Your task to perform on an android device: Search for a small bookcase on Ikea.com Image 0: 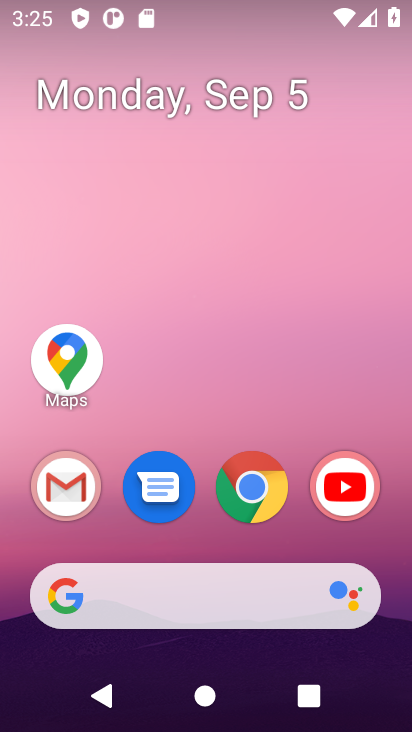
Step 0: drag from (302, 534) to (245, 110)
Your task to perform on an android device: Search for a small bookcase on Ikea.com Image 1: 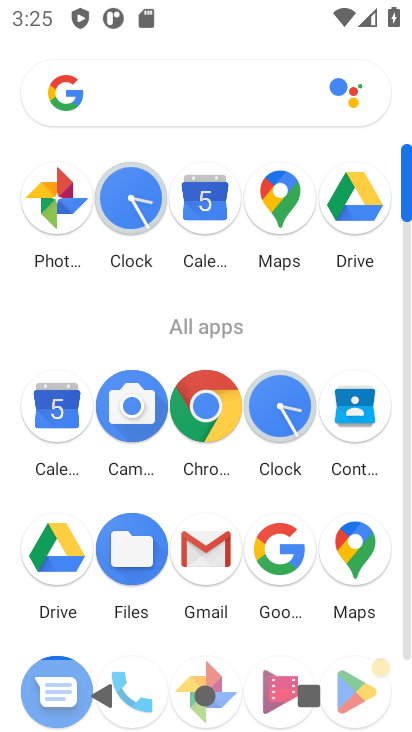
Step 1: click (197, 408)
Your task to perform on an android device: Search for a small bookcase on Ikea.com Image 2: 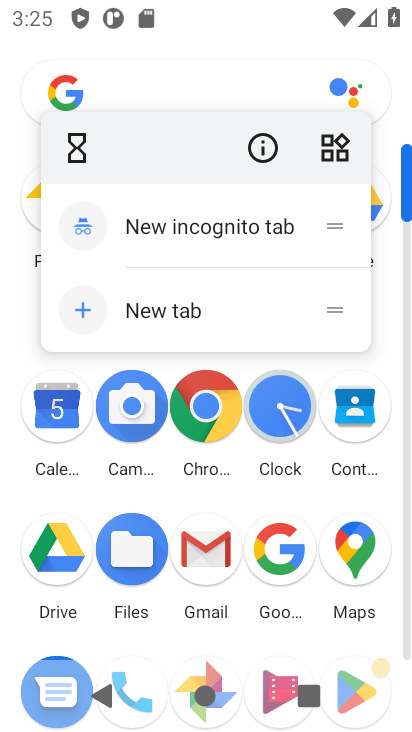
Step 2: click (199, 405)
Your task to perform on an android device: Search for a small bookcase on Ikea.com Image 3: 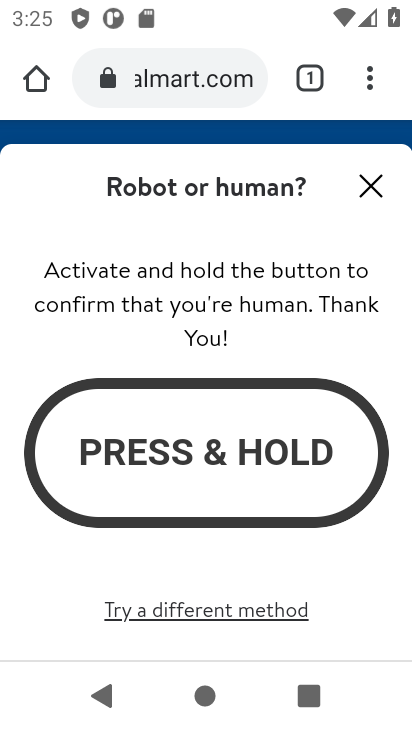
Step 3: click (178, 74)
Your task to perform on an android device: Search for a small bookcase on Ikea.com Image 4: 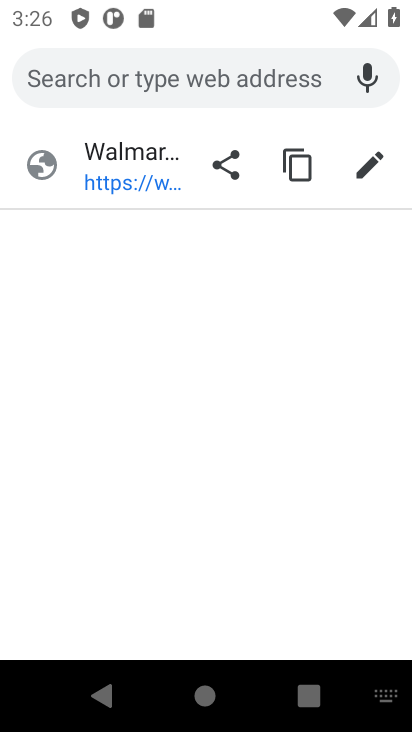
Step 4: type " Ikea.com"
Your task to perform on an android device: Search for a small bookcase on Ikea.com Image 5: 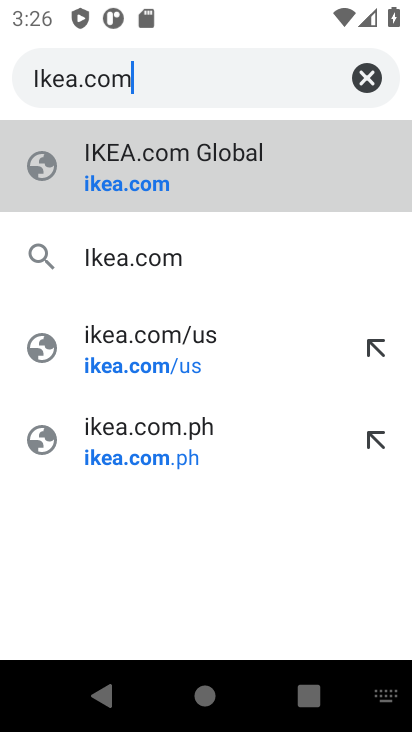
Step 5: click (142, 171)
Your task to perform on an android device: Search for a small bookcase on Ikea.com Image 6: 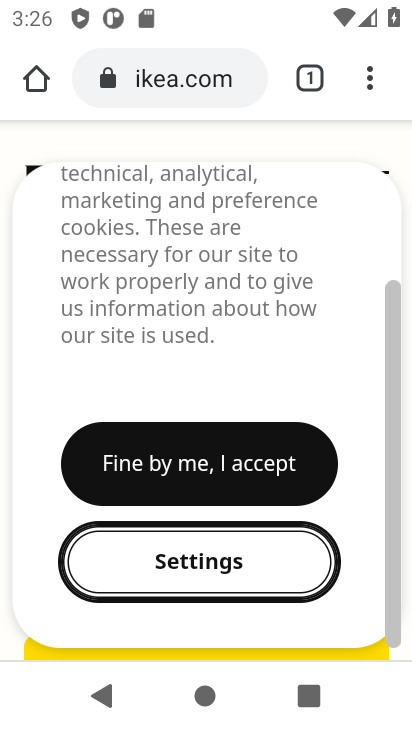
Step 6: click (211, 463)
Your task to perform on an android device: Search for a small bookcase on Ikea.com Image 7: 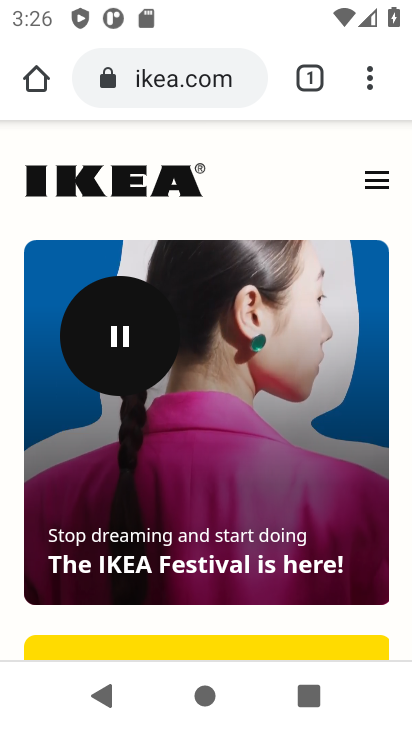
Step 7: click (385, 182)
Your task to perform on an android device: Search for a small bookcase on Ikea.com Image 8: 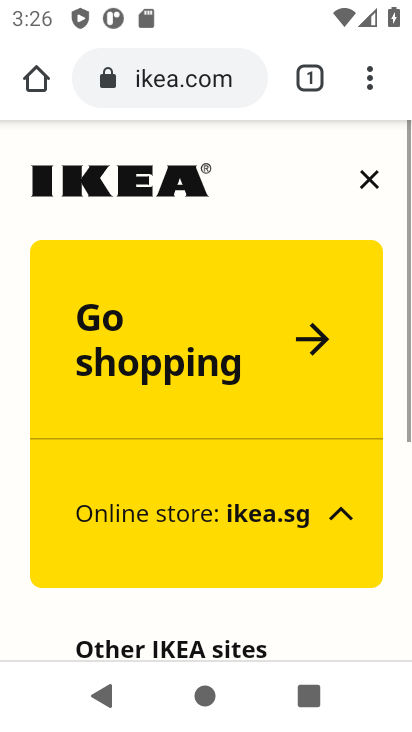
Step 8: drag from (205, 612) to (177, 4)
Your task to perform on an android device: Search for a small bookcase on Ikea.com Image 9: 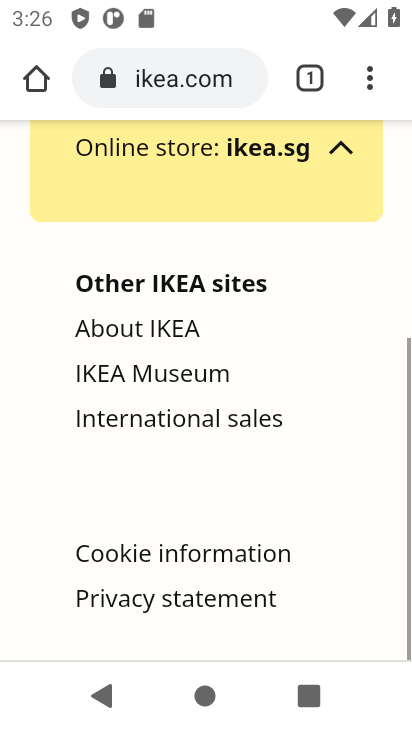
Step 9: drag from (145, 219) to (65, 502)
Your task to perform on an android device: Search for a small bookcase on Ikea.com Image 10: 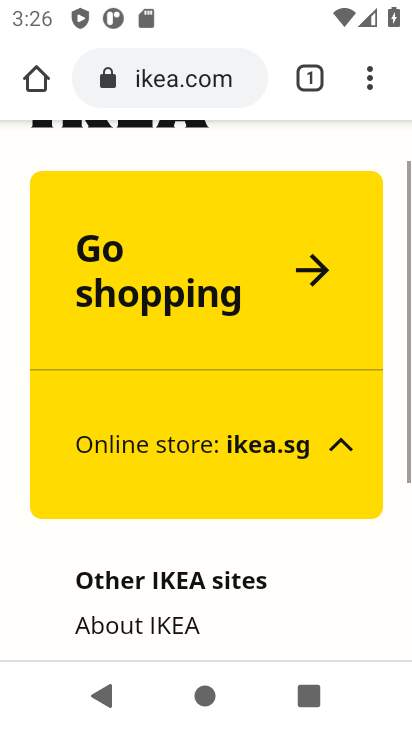
Step 10: drag from (169, 166) to (125, 637)
Your task to perform on an android device: Search for a small bookcase on Ikea.com Image 11: 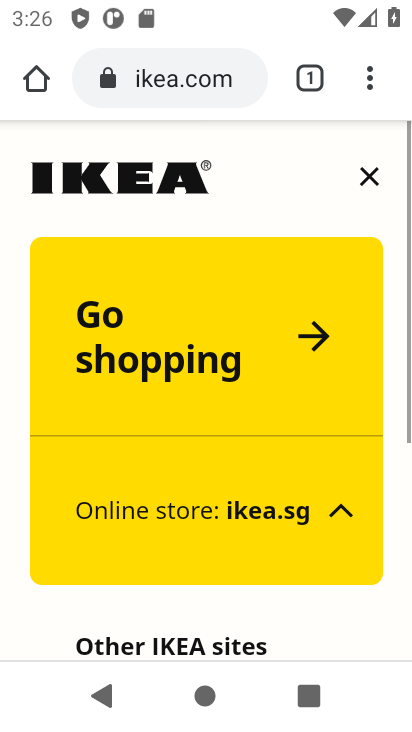
Step 11: drag from (116, 106) to (104, 476)
Your task to perform on an android device: Search for a small bookcase on Ikea.com Image 12: 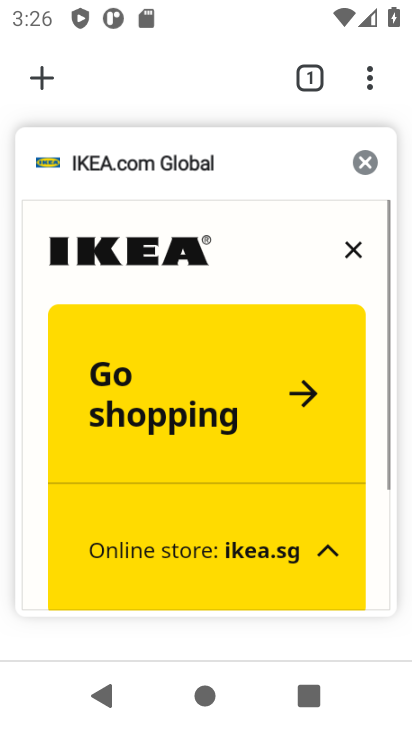
Step 12: click (334, 269)
Your task to perform on an android device: Search for a small bookcase on Ikea.com Image 13: 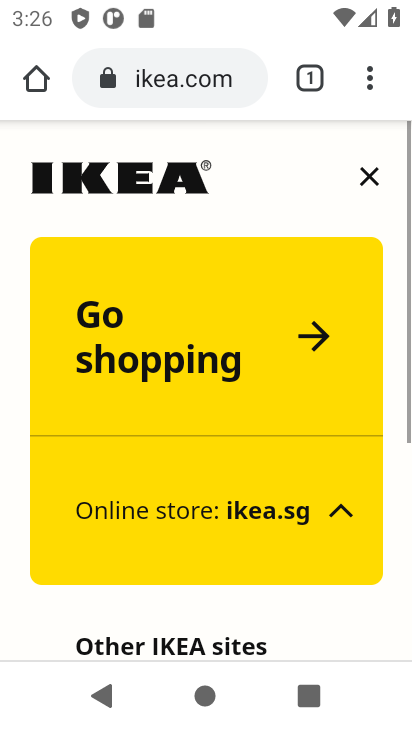
Step 13: press back button
Your task to perform on an android device: Search for a small bookcase on Ikea.com Image 14: 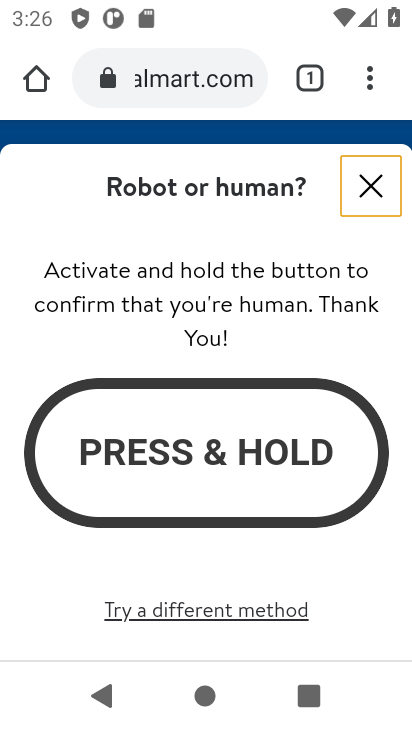
Step 14: click (369, 188)
Your task to perform on an android device: Search for a small bookcase on Ikea.com Image 15: 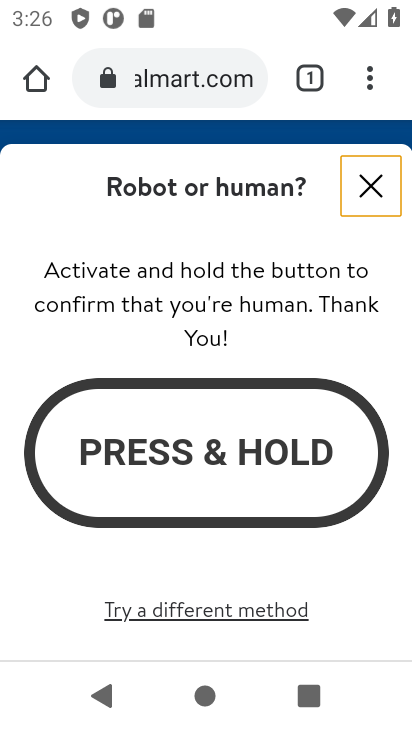
Step 15: click (370, 186)
Your task to perform on an android device: Search for a small bookcase on Ikea.com Image 16: 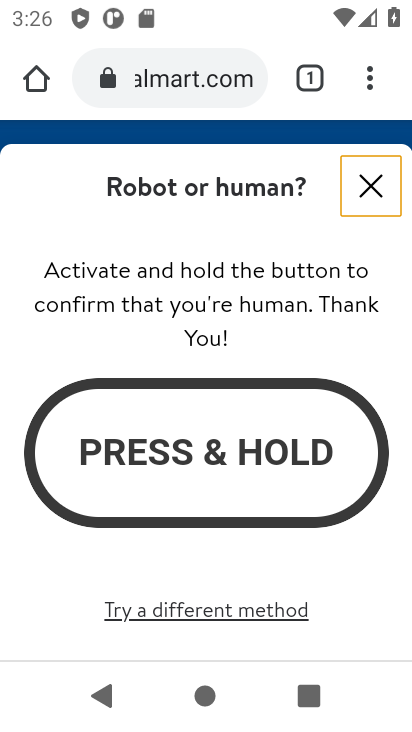
Step 16: click (211, 452)
Your task to perform on an android device: Search for a small bookcase on Ikea.com Image 17: 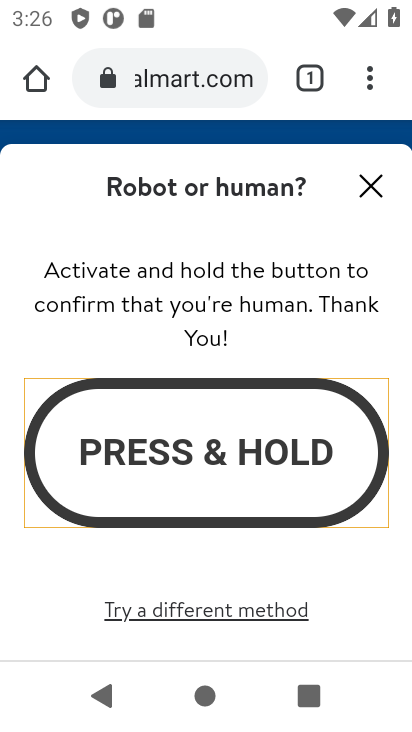
Step 17: click (221, 448)
Your task to perform on an android device: Search for a small bookcase on Ikea.com Image 18: 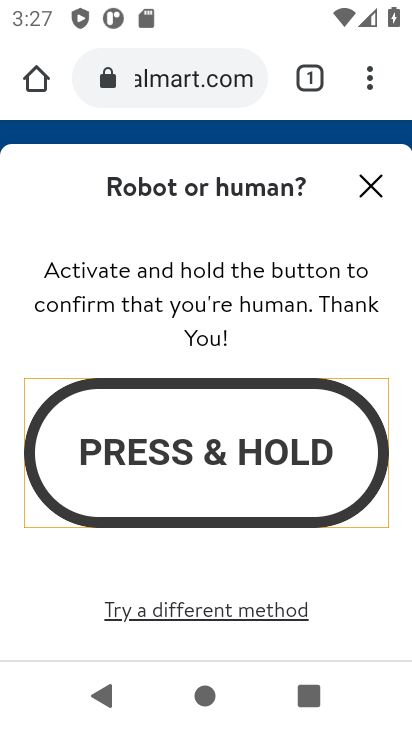
Step 18: click (221, 448)
Your task to perform on an android device: Search for a small bookcase on Ikea.com Image 19: 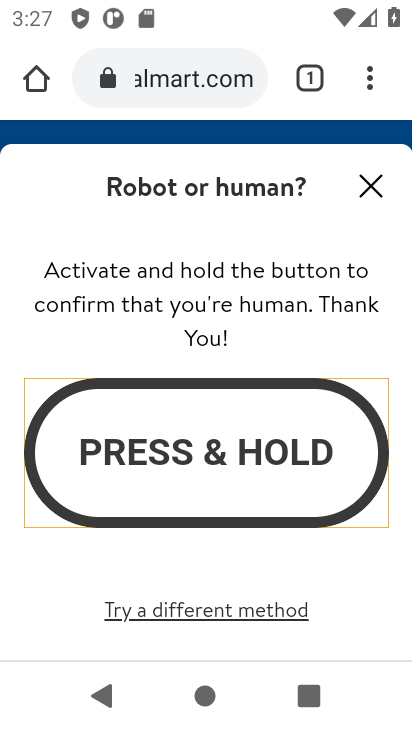
Step 19: click (251, 455)
Your task to perform on an android device: Search for a small bookcase on Ikea.com Image 20: 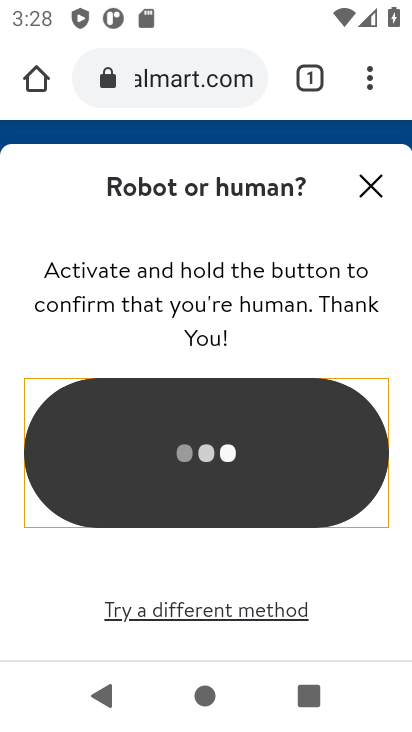
Step 20: click (371, 181)
Your task to perform on an android device: Search for a small bookcase on Ikea.com Image 21: 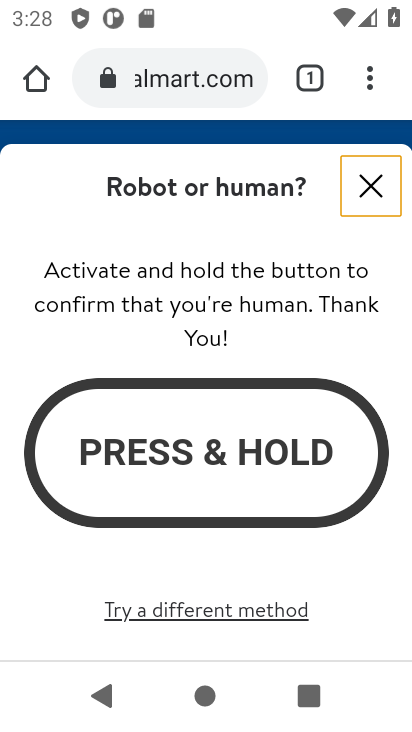
Step 21: click (370, 184)
Your task to perform on an android device: Search for a small bookcase on Ikea.com Image 22: 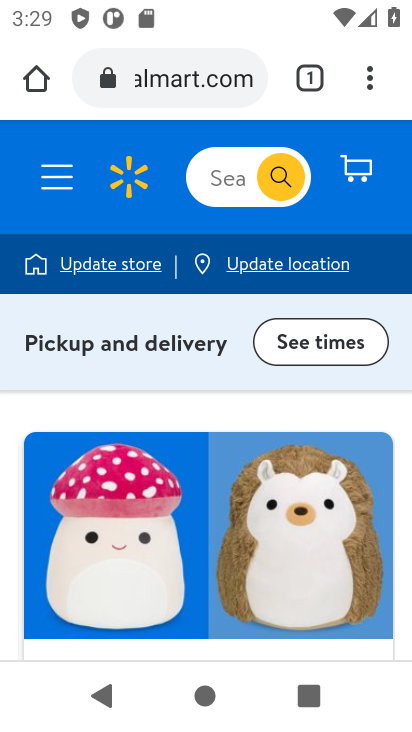
Step 22: click (272, 163)
Your task to perform on an android device: Search for a small bookcase on Ikea.com Image 23: 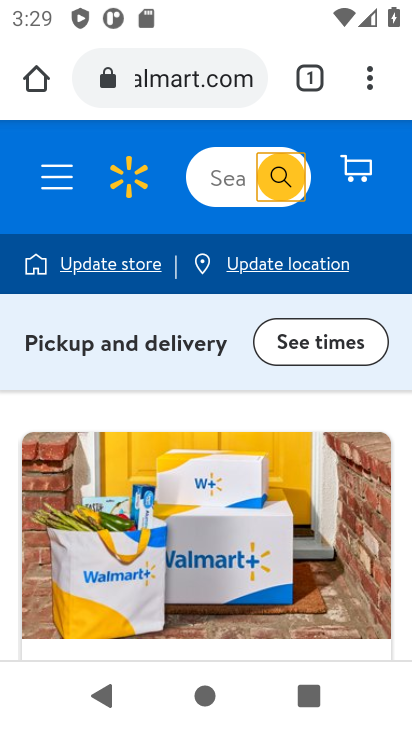
Step 23: click (273, 169)
Your task to perform on an android device: Search for a small bookcase on Ikea.com Image 24: 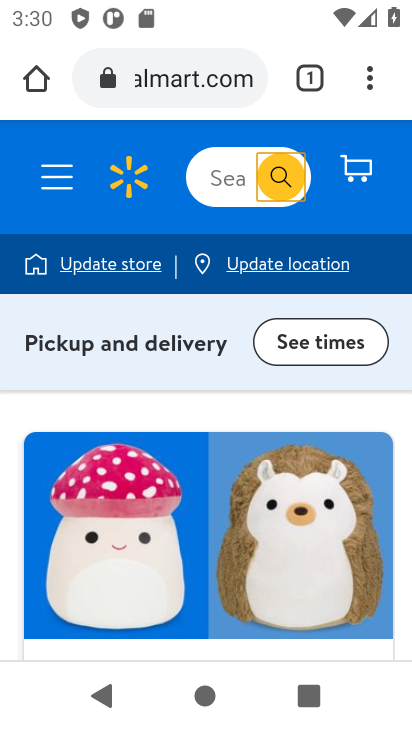
Step 24: task complete